Your task to perform on an android device: turn pop-ups on in chrome Image 0: 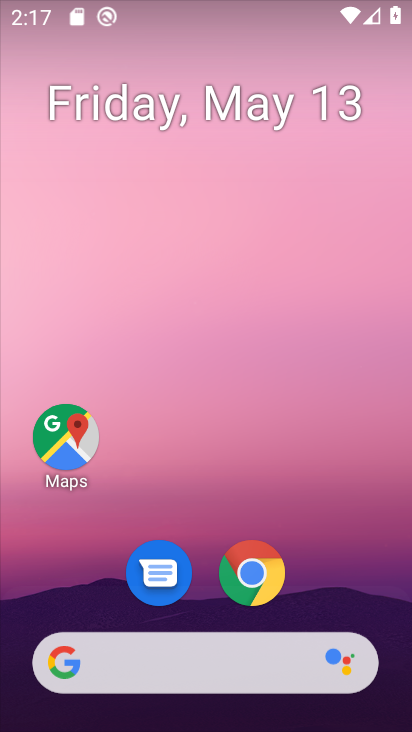
Step 0: click (243, 578)
Your task to perform on an android device: turn pop-ups on in chrome Image 1: 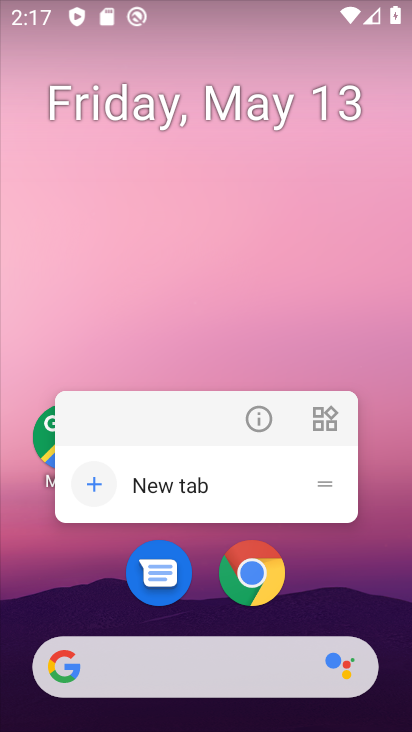
Step 1: click (253, 571)
Your task to perform on an android device: turn pop-ups on in chrome Image 2: 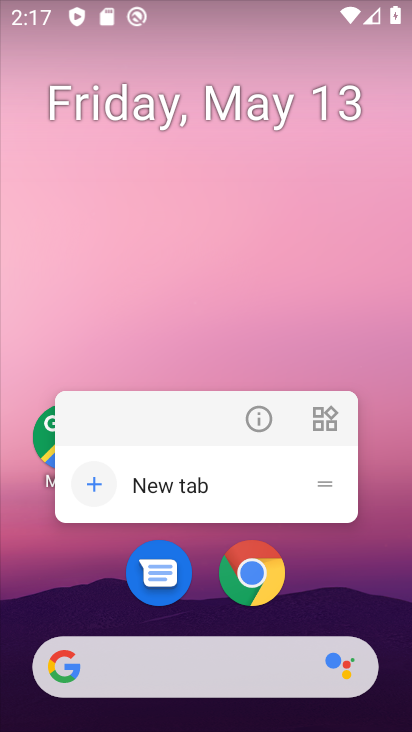
Step 2: click (252, 570)
Your task to perform on an android device: turn pop-ups on in chrome Image 3: 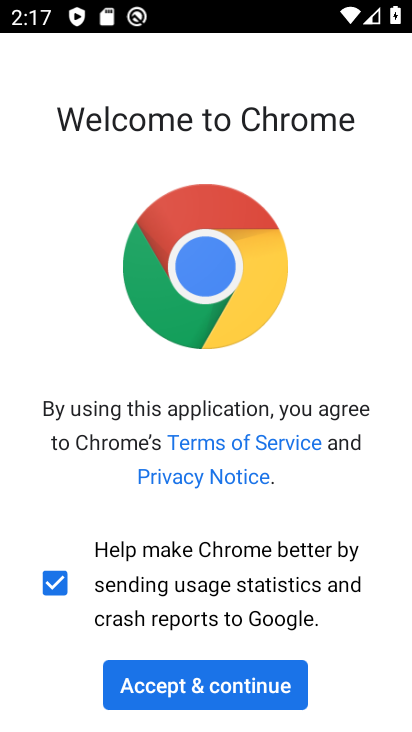
Step 3: click (295, 696)
Your task to perform on an android device: turn pop-ups on in chrome Image 4: 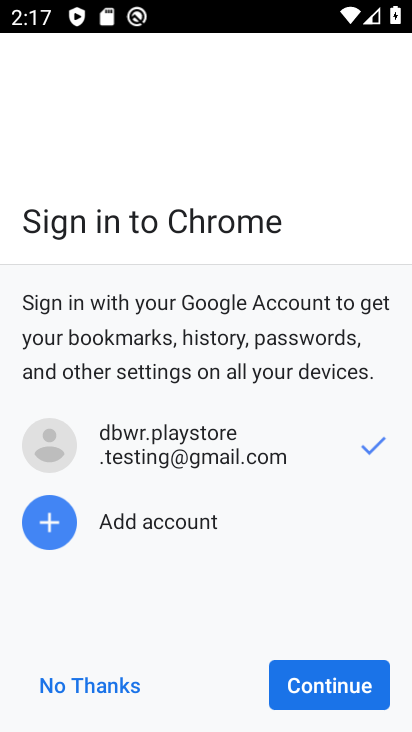
Step 4: click (351, 685)
Your task to perform on an android device: turn pop-ups on in chrome Image 5: 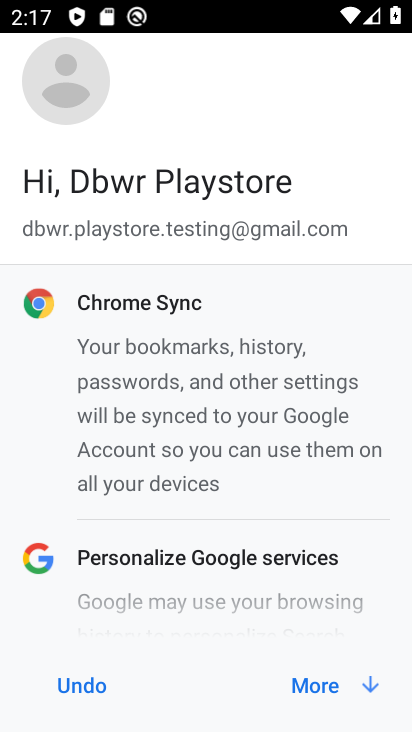
Step 5: click (361, 678)
Your task to perform on an android device: turn pop-ups on in chrome Image 6: 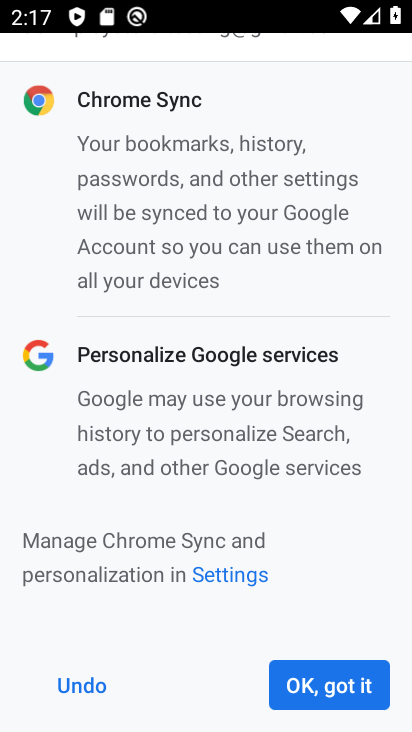
Step 6: click (329, 686)
Your task to perform on an android device: turn pop-ups on in chrome Image 7: 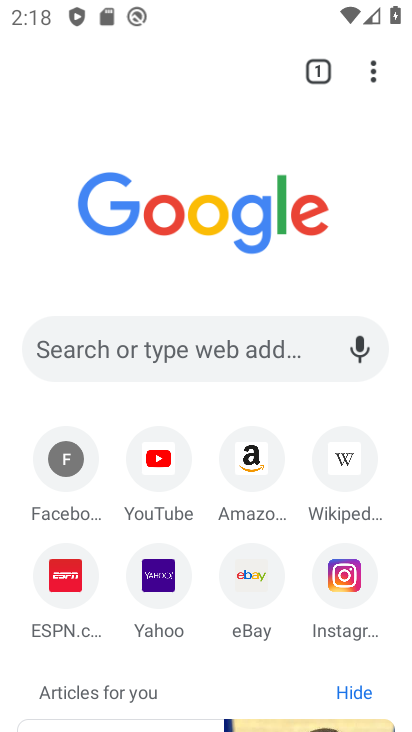
Step 7: click (387, 84)
Your task to perform on an android device: turn pop-ups on in chrome Image 8: 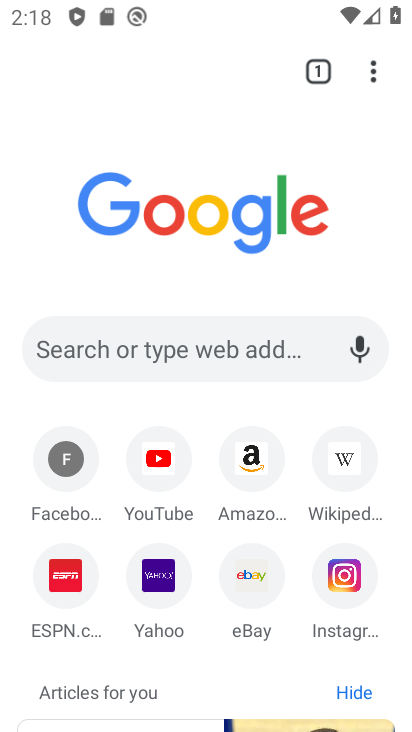
Step 8: drag from (387, 74) to (276, 591)
Your task to perform on an android device: turn pop-ups on in chrome Image 9: 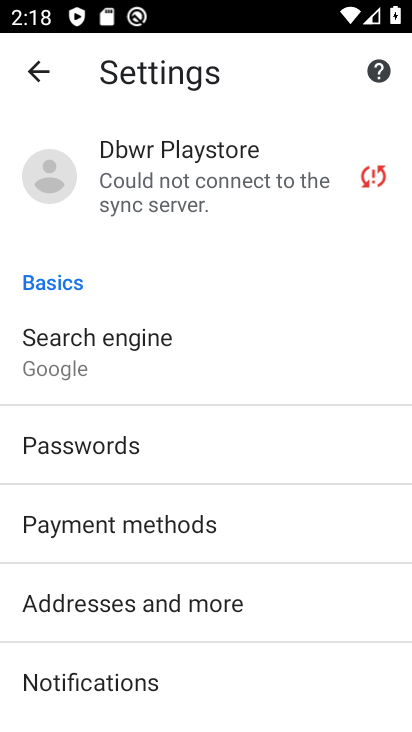
Step 9: drag from (113, 627) to (292, 266)
Your task to perform on an android device: turn pop-ups on in chrome Image 10: 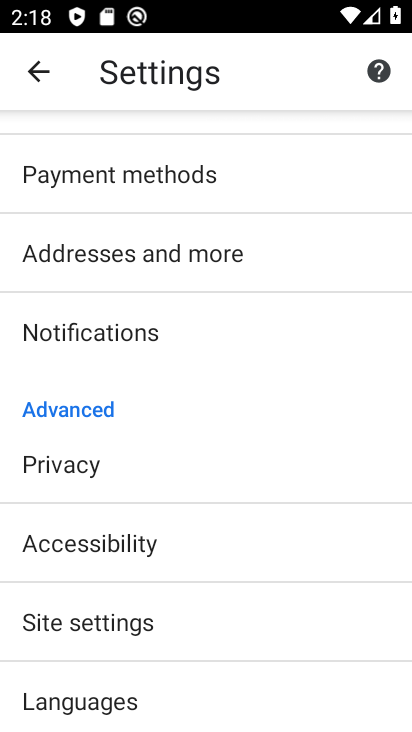
Step 10: click (108, 614)
Your task to perform on an android device: turn pop-ups on in chrome Image 11: 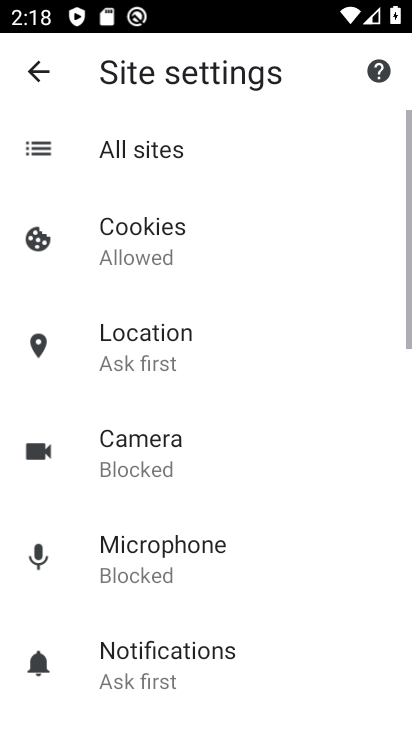
Step 11: drag from (133, 617) to (367, 184)
Your task to perform on an android device: turn pop-ups on in chrome Image 12: 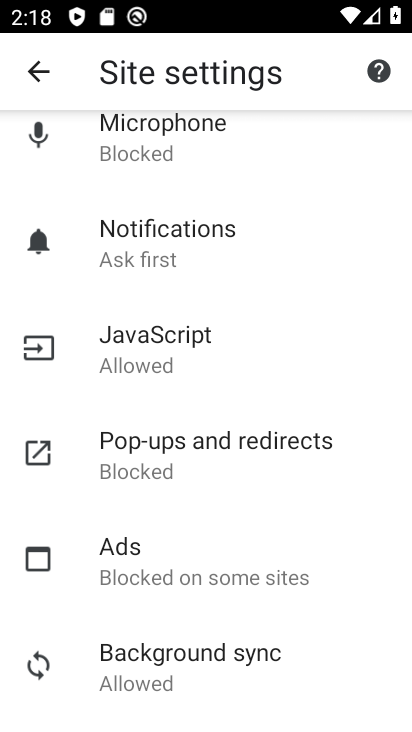
Step 12: click (257, 461)
Your task to perform on an android device: turn pop-ups on in chrome Image 13: 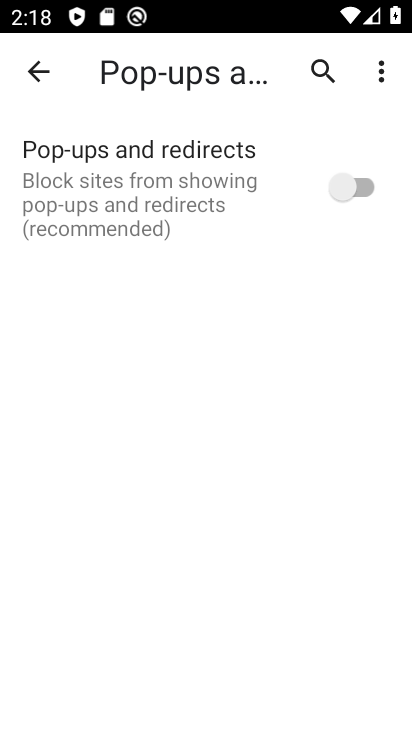
Step 13: click (381, 178)
Your task to perform on an android device: turn pop-ups on in chrome Image 14: 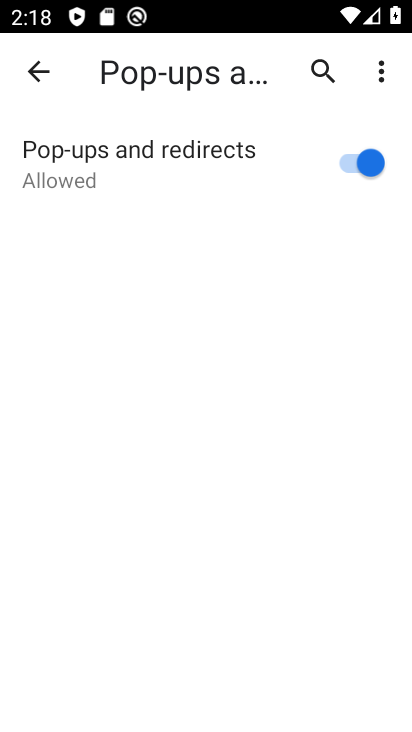
Step 14: task complete